Your task to perform on an android device: Open Google Maps Image 0: 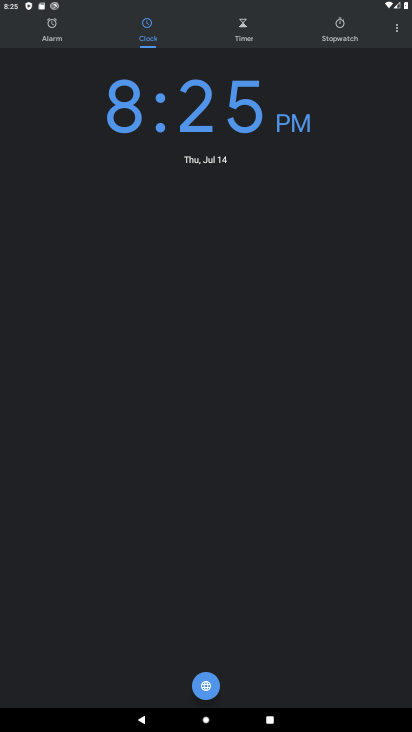
Step 0: press home button
Your task to perform on an android device: Open Google Maps Image 1: 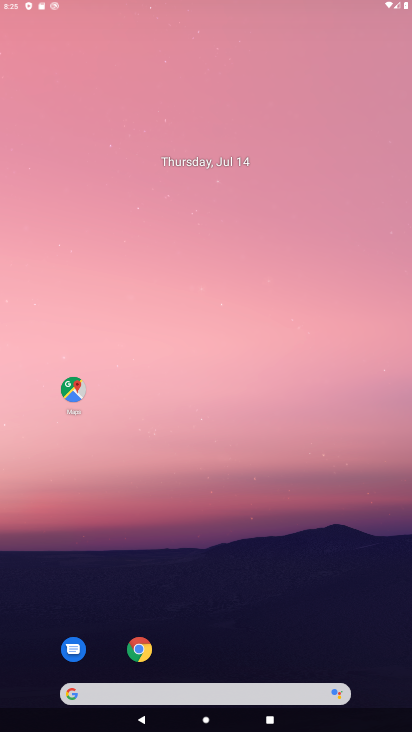
Step 1: click (76, 399)
Your task to perform on an android device: Open Google Maps Image 2: 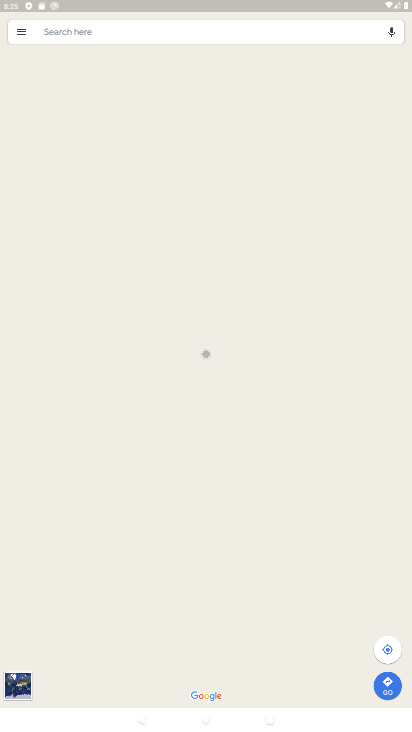
Step 2: task complete